Your task to perform on an android device: Open notification settings Image 0: 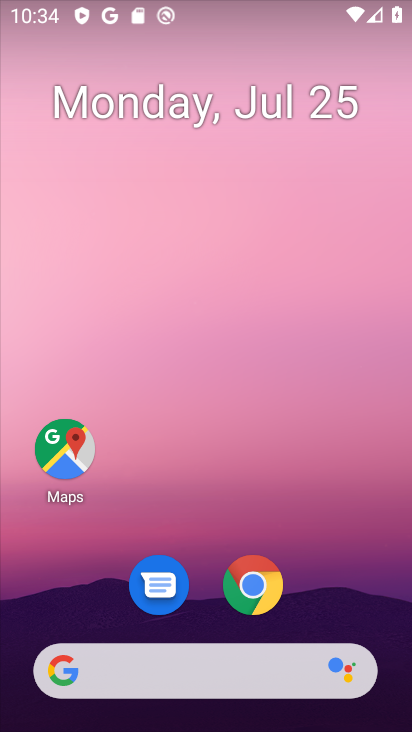
Step 0: drag from (224, 490) to (220, 0)
Your task to perform on an android device: Open notification settings Image 1: 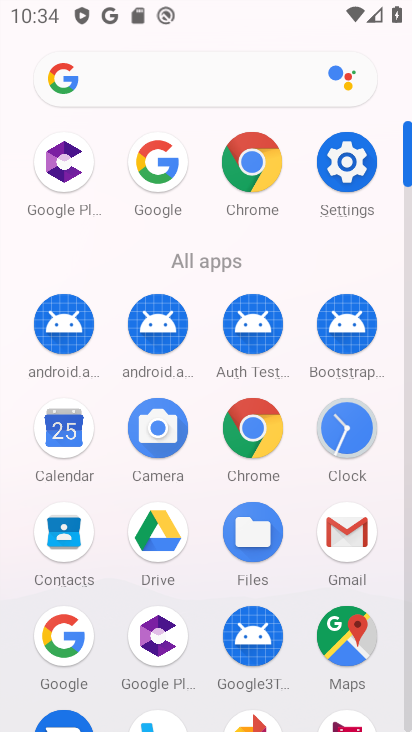
Step 1: click (346, 170)
Your task to perform on an android device: Open notification settings Image 2: 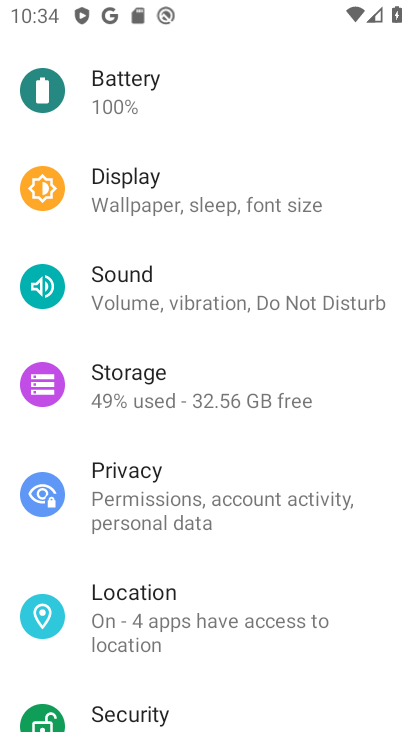
Step 2: drag from (218, 175) to (213, 621)
Your task to perform on an android device: Open notification settings Image 3: 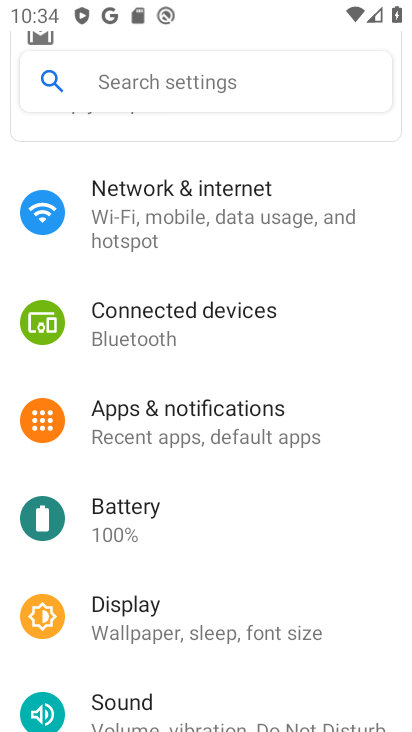
Step 3: click (215, 414)
Your task to perform on an android device: Open notification settings Image 4: 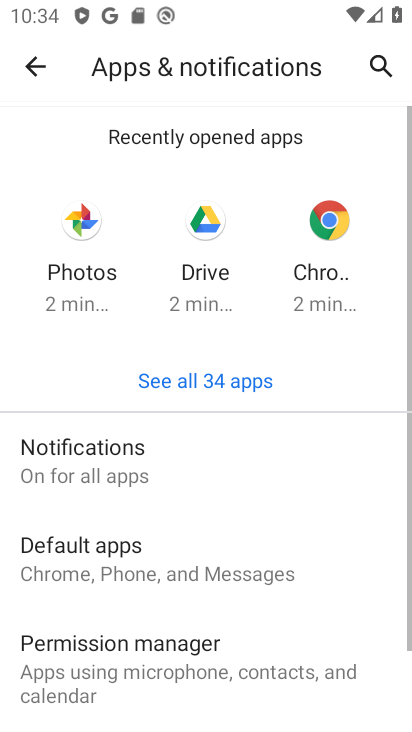
Step 4: click (150, 455)
Your task to perform on an android device: Open notification settings Image 5: 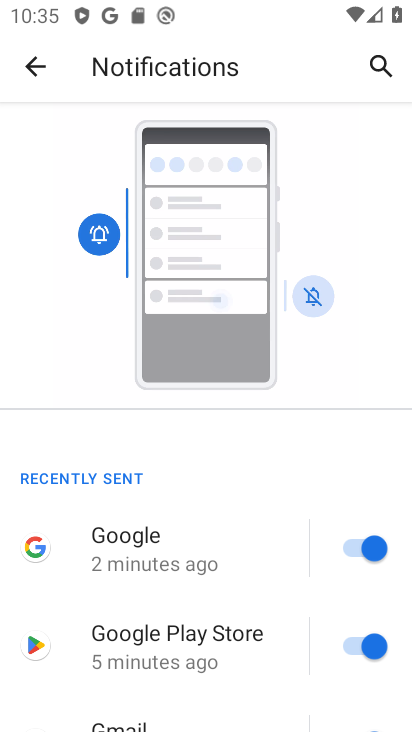
Step 5: task complete